Your task to perform on an android device: Show me popular videos on Youtube Image 0: 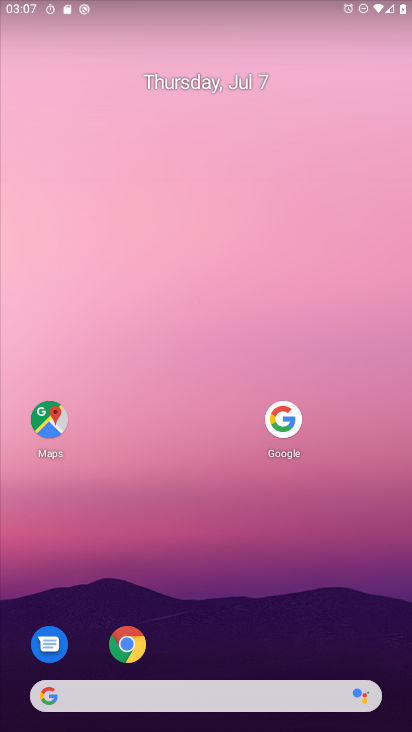
Step 0: drag from (150, 690) to (307, 4)
Your task to perform on an android device: Show me popular videos on Youtube Image 1: 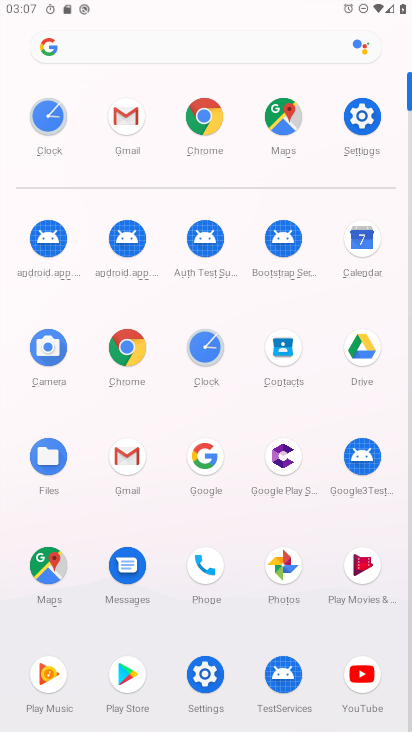
Step 1: click (363, 677)
Your task to perform on an android device: Show me popular videos on Youtube Image 2: 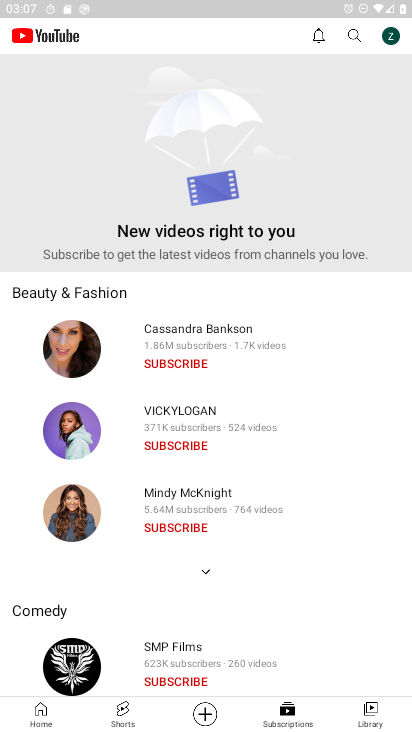
Step 2: click (29, 708)
Your task to perform on an android device: Show me popular videos on Youtube Image 3: 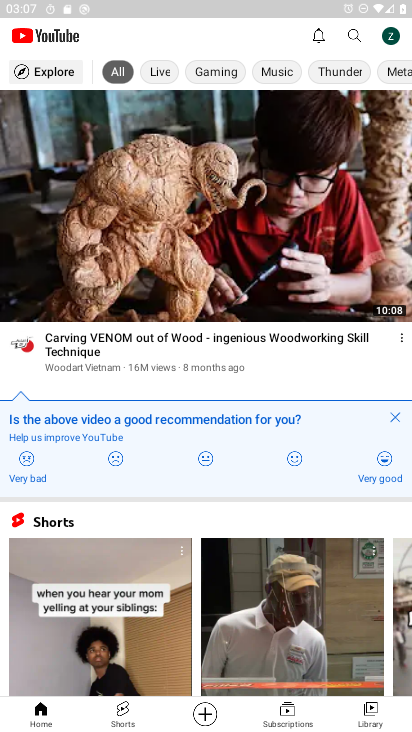
Step 3: task complete